Your task to perform on an android device: find snoozed emails in the gmail app Image 0: 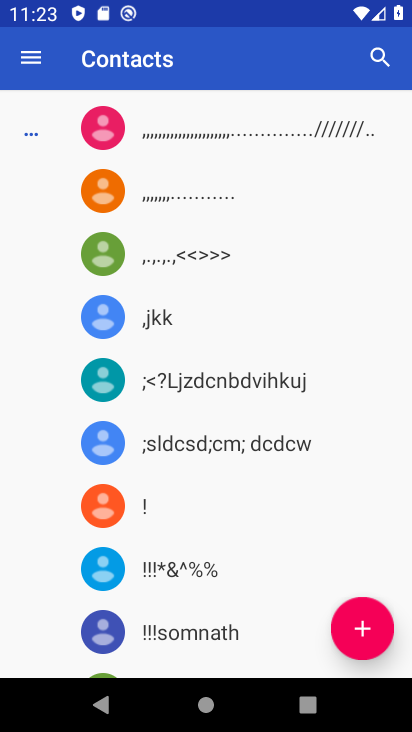
Step 0: press home button
Your task to perform on an android device: find snoozed emails in the gmail app Image 1: 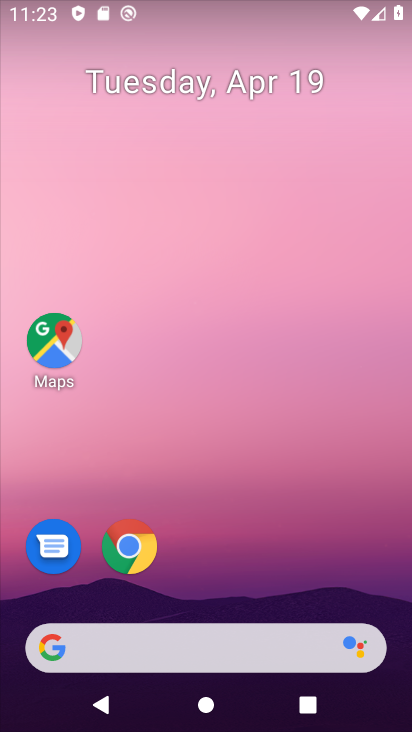
Step 1: drag from (240, 613) to (143, 106)
Your task to perform on an android device: find snoozed emails in the gmail app Image 2: 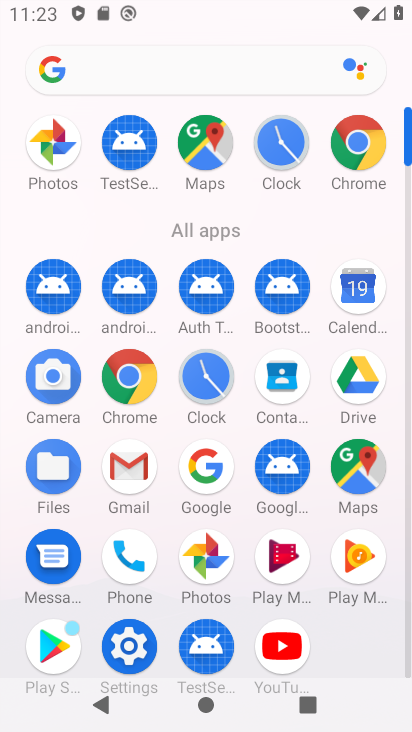
Step 2: click (121, 485)
Your task to perform on an android device: find snoozed emails in the gmail app Image 3: 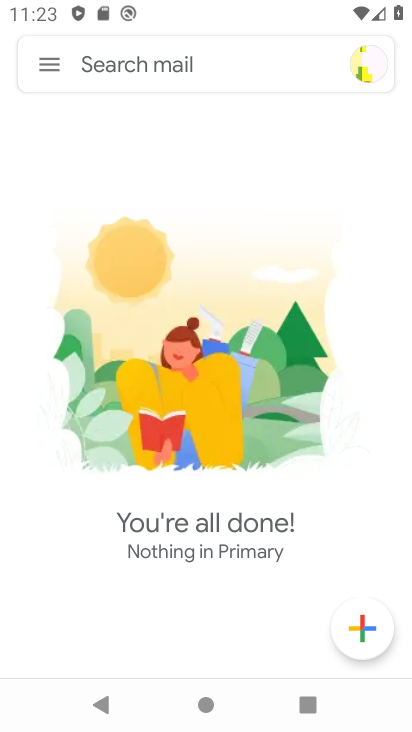
Step 3: click (52, 78)
Your task to perform on an android device: find snoozed emails in the gmail app Image 4: 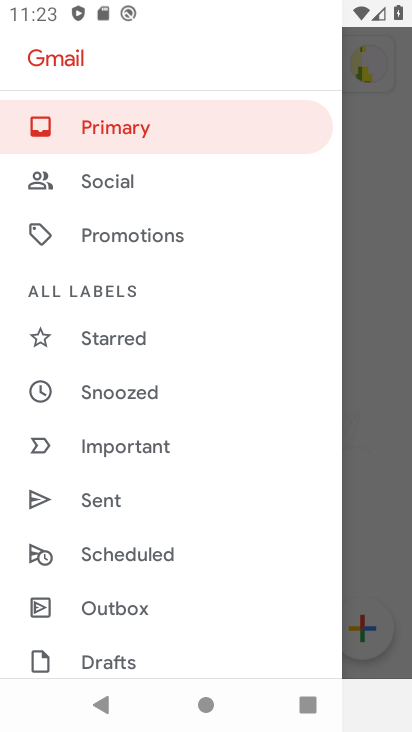
Step 4: click (168, 400)
Your task to perform on an android device: find snoozed emails in the gmail app Image 5: 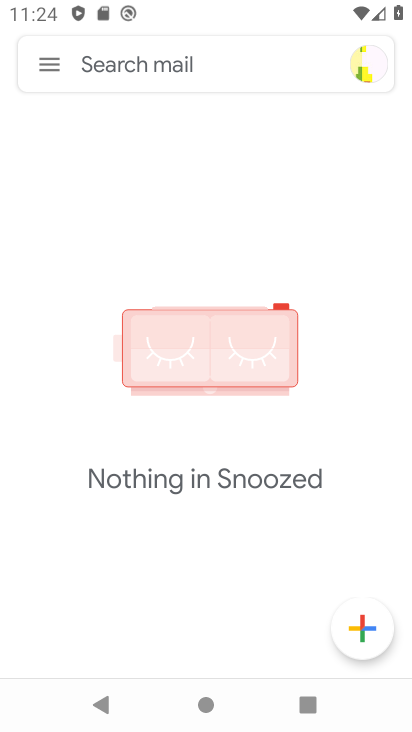
Step 5: task complete